Your task to perform on an android device: Open settings Image 0: 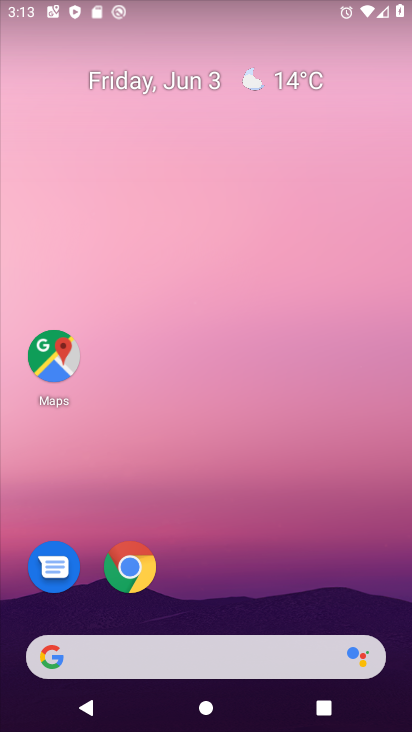
Step 0: drag from (242, 661) to (217, 157)
Your task to perform on an android device: Open settings Image 1: 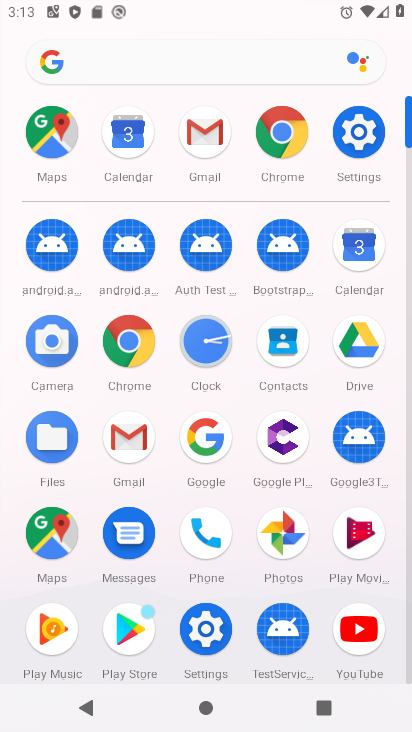
Step 1: click (207, 628)
Your task to perform on an android device: Open settings Image 2: 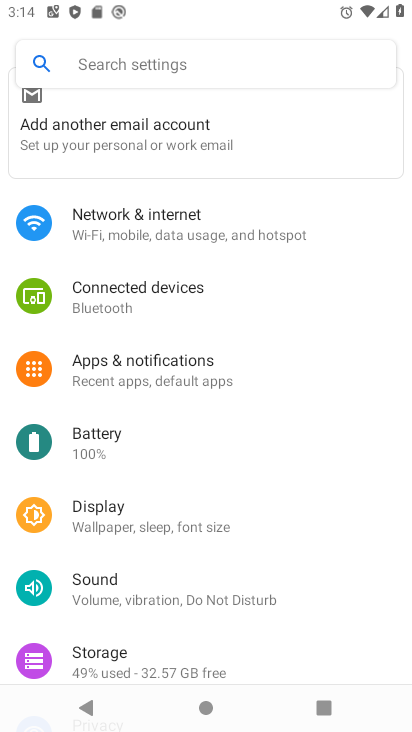
Step 2: task complete